Your task to perform on an android device: toggle show notifications on the lock screen Image 0: 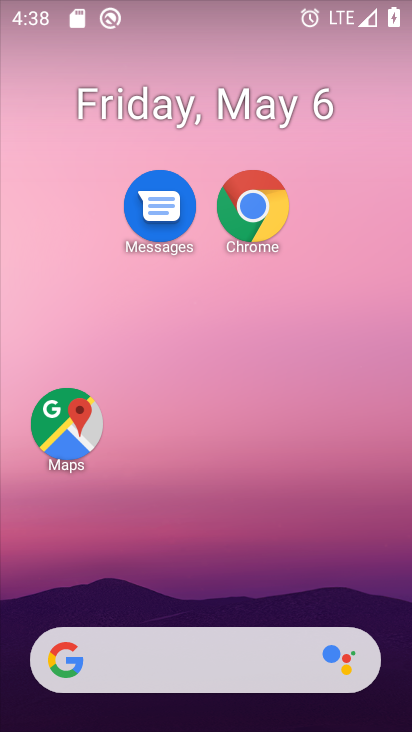
Step 0: drag from (196, 579) to (239, 281)
Your task to perform on an android device: toggle show notifications on the lock screen Image 1: 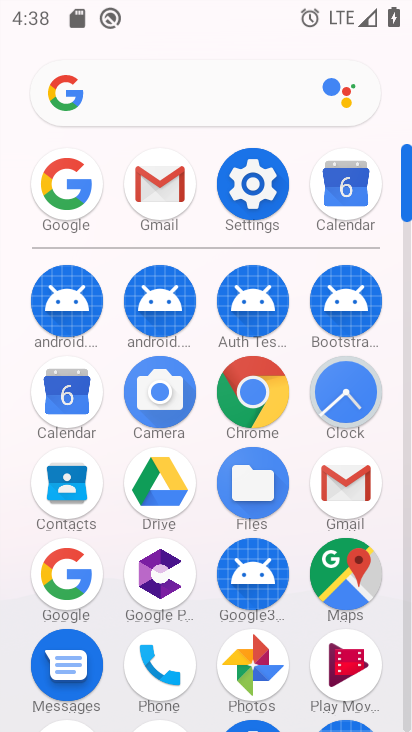
Step 1: click (254, 180)
Your task to perform on an android device: toggle show notifications on the lock screen Image 2: 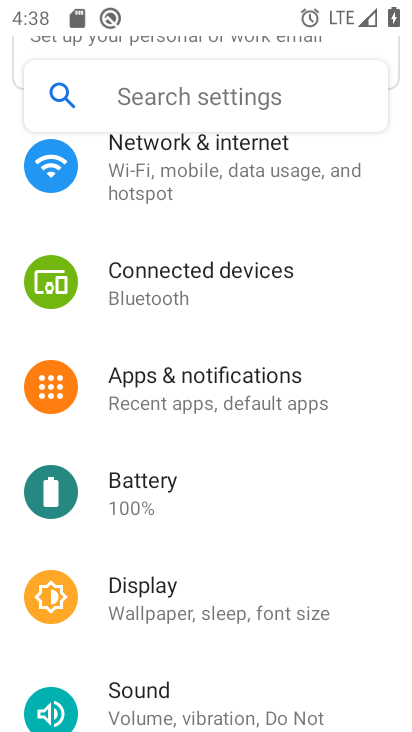
Step 2: click (197, 387)
Your task to perform on an android device: toggle show notifications on the lock screen Image 3: 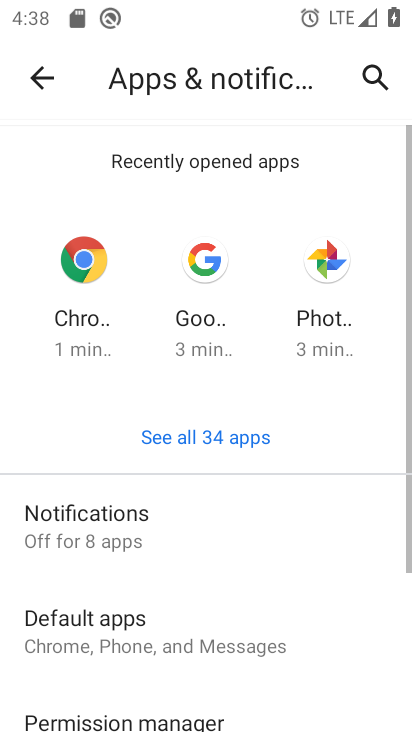
Step 3: click (108, 541)
Your task to perform on an android device: toggle show notifications on the lock screen Image 4: 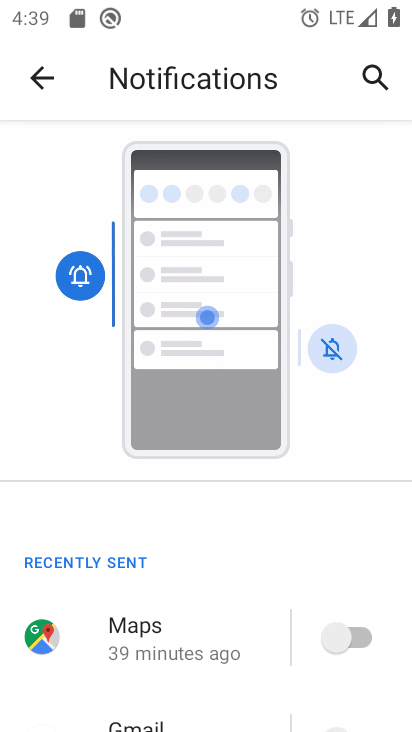
Step 4: drag from (177, 718) to (169, 306)
Your task to perform on an android device: toggle show notifications on the lock screen Image 5: 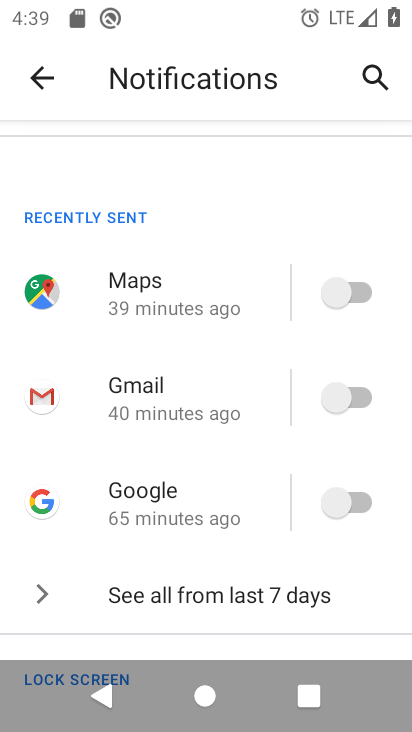
Step 5: drag from (187, 637) to (204, 359)
Your task to perform on an android device: toggle show notifications on the lock screen Image 6: 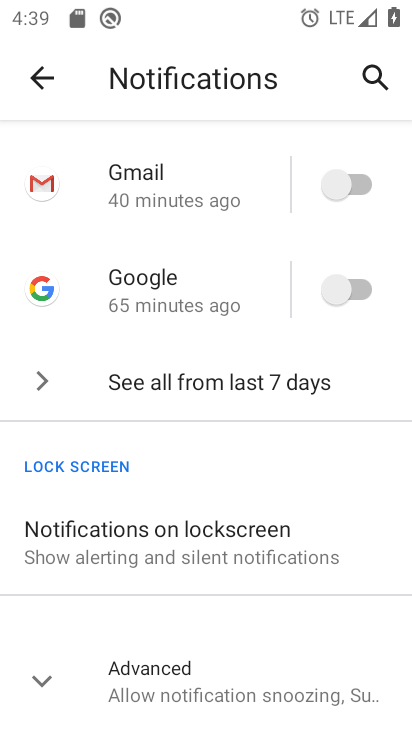
Step 6: click (93, 543)
Your task to perform on an android device: toggle show notifications on the lock screen Image 7: 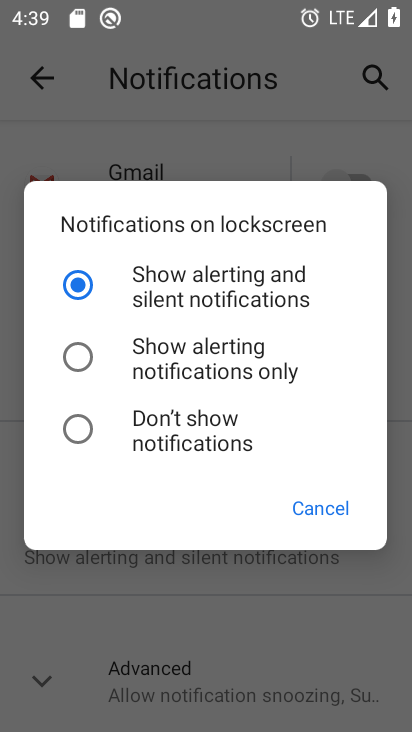
Step 7: click (77, 433)
Your task to perform on an android device: toggle show notifications on the lock screen Image 8: 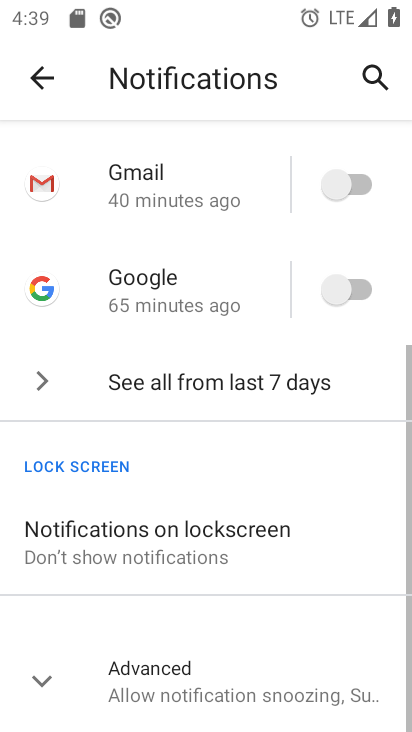
Step 8: task complete